Your task to perform on an android device: Open ESPN.com Image 0: 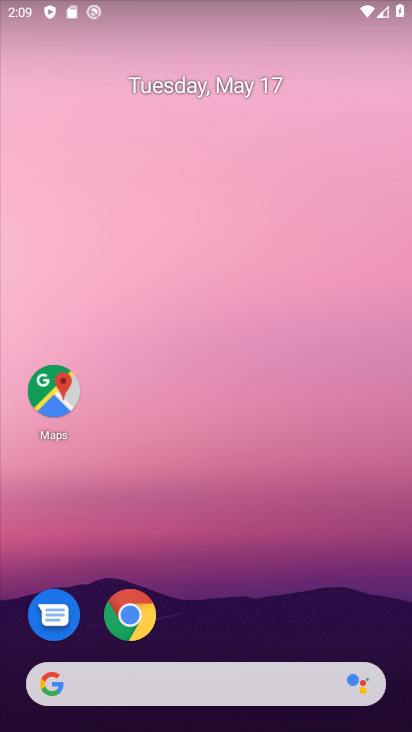
Step 0: press home button
Your task to perform on an android device: Open ESPN.com Image 1: 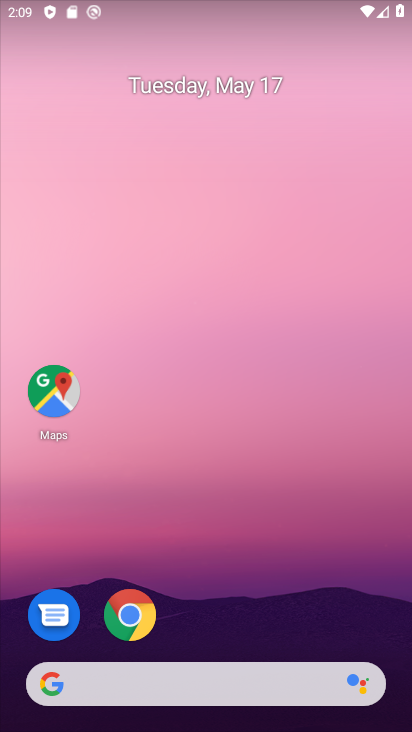
Step 1: click (126, 611)
Your task to perform on an android device: Open ESPN.com Image 2: 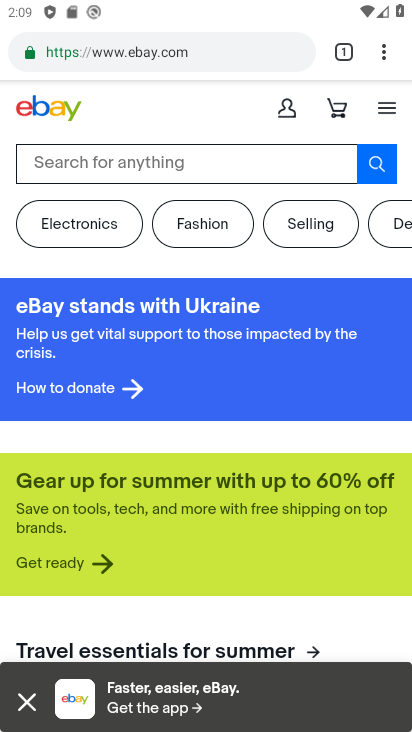
Step 2: click (346, 43)
Your task to perform on an android device: Open ESPN.com Image 3: 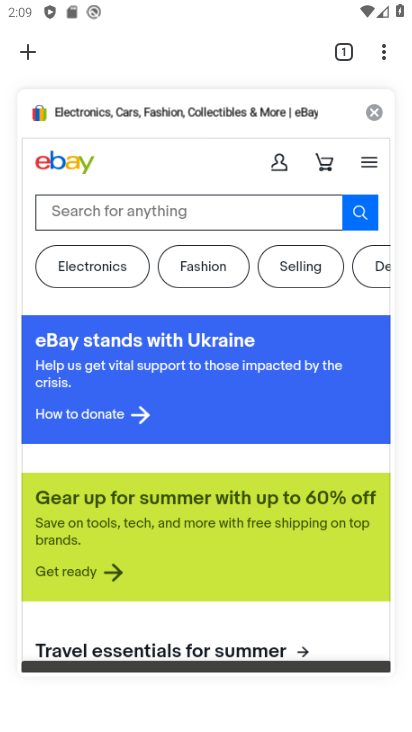
Step 3: click (372, 111)
Your task to perform on an android device: Open ESPN.com Image 4: 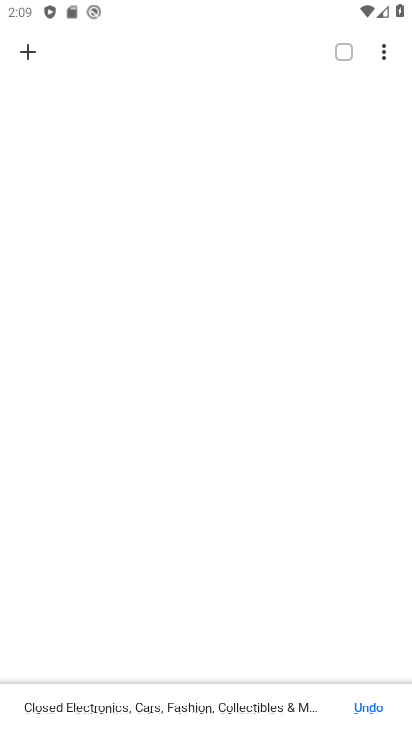
Step 4: click (29, 53)
Your task to perform on an android device: Open ESPN.com Image 5: 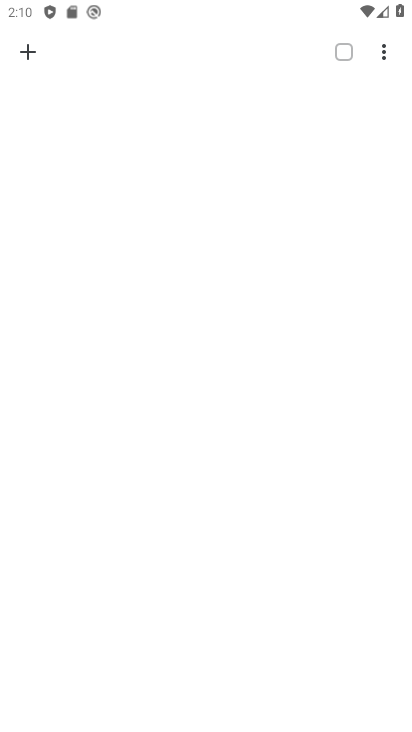
Step 5: click (34, 47)
Your task to perform on an android device: Open ESPN.com Image 6: 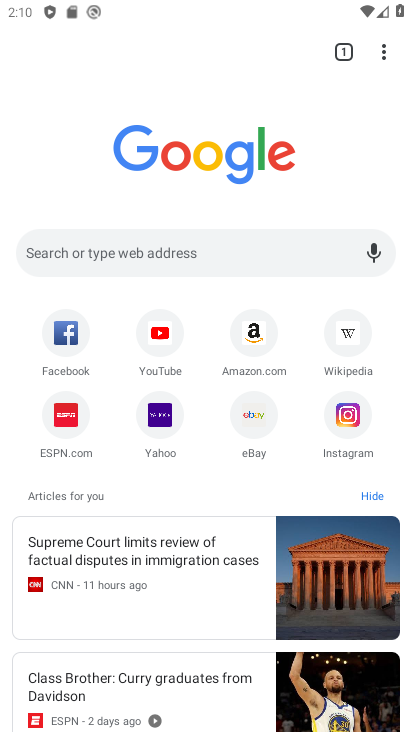
Step 6: click (61, 419)
Your task to perform on an android device: Open ESPN.com Image 7: 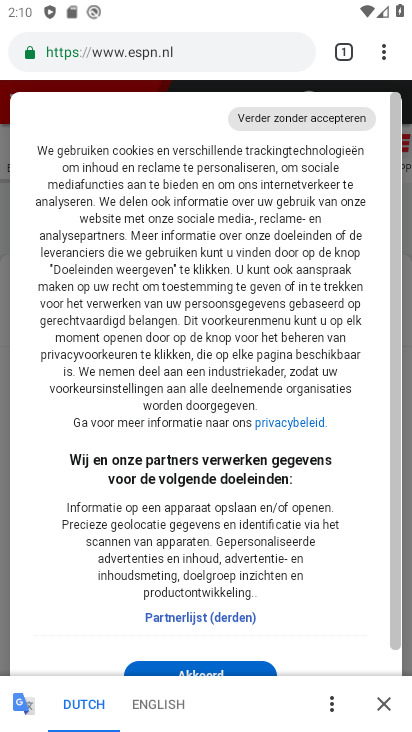
Step 7: drag from (217, 632) to (219, 276)
Your task to perform on an android device: Open ESPN.com Image 8: 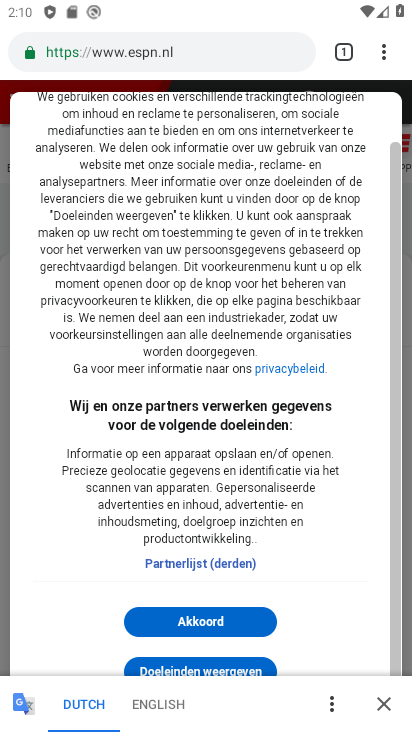
Step 8: click (208, 615)
Your task to perform on an android device: Open ESPN.com Image 9: 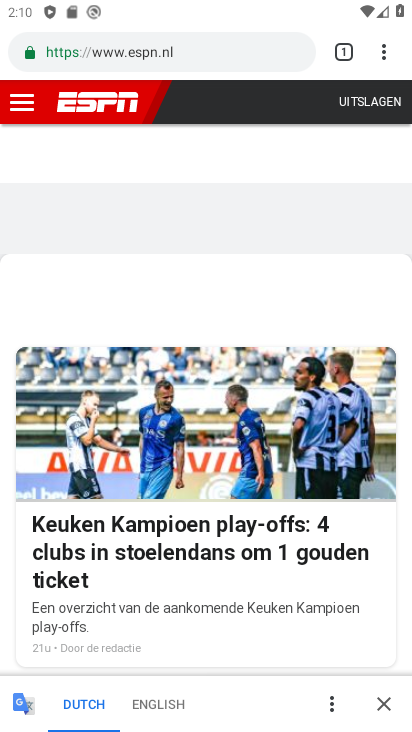
Step 9: task complete